Your task to perform on an android device: add a contact in the contacts app Image 0: 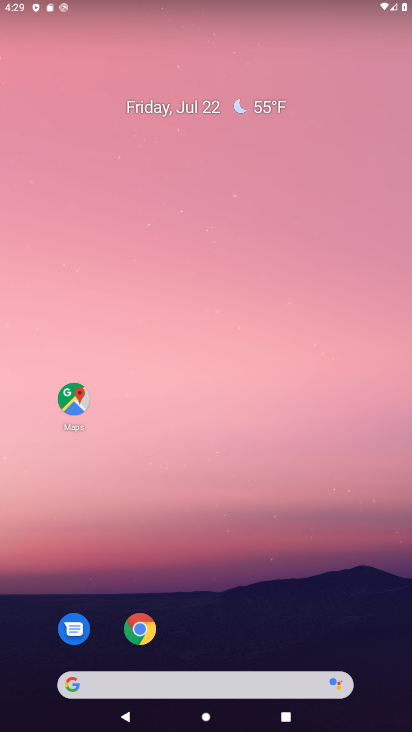
Step 0: drag from (245, 546) to (263, 212)
Your task to perform on an android device: add a contact in the contacts app Image 1: 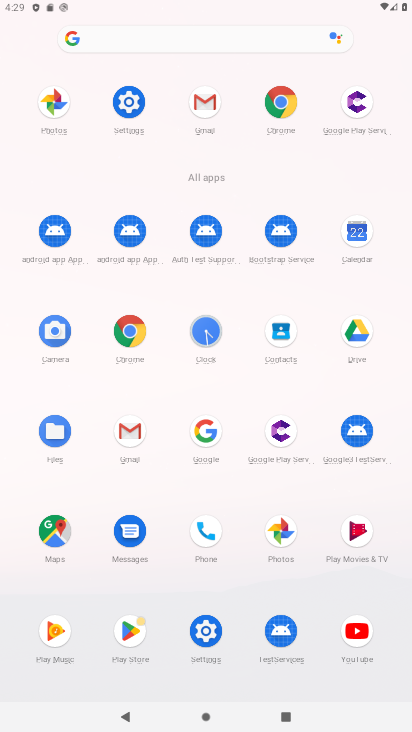
Step 1: click (280, 330)
Your task to perform on an android device: add a contact in the contacts app Image 2: 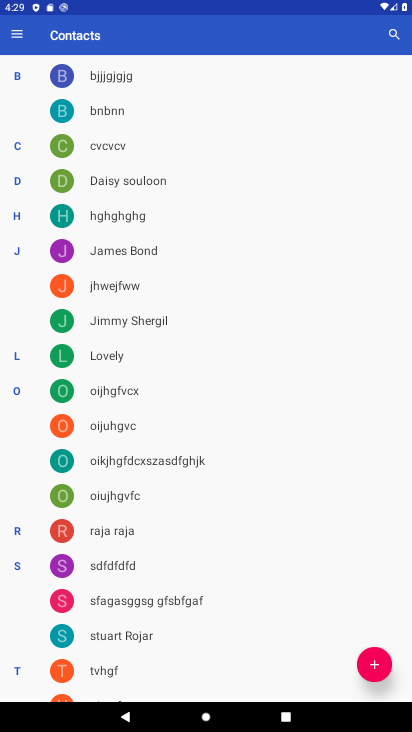
Step 2: click (371, 661)
Your task to perform on an android device: add a contact in the contacts app Image 3: 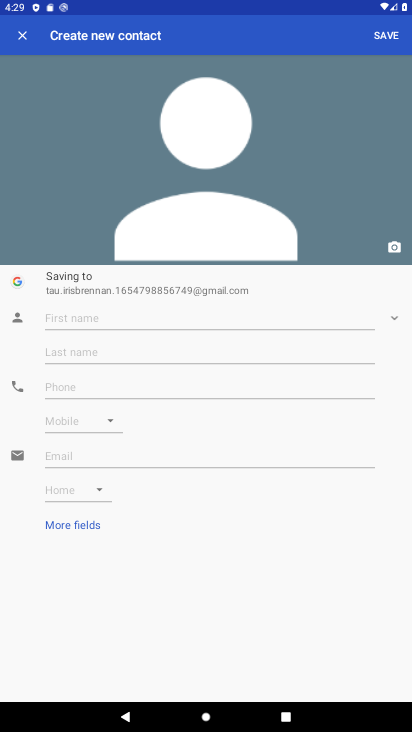
Step 3: click (137, 326)
Your task to perform on an android device: add a contact in the contacts app Image 4: 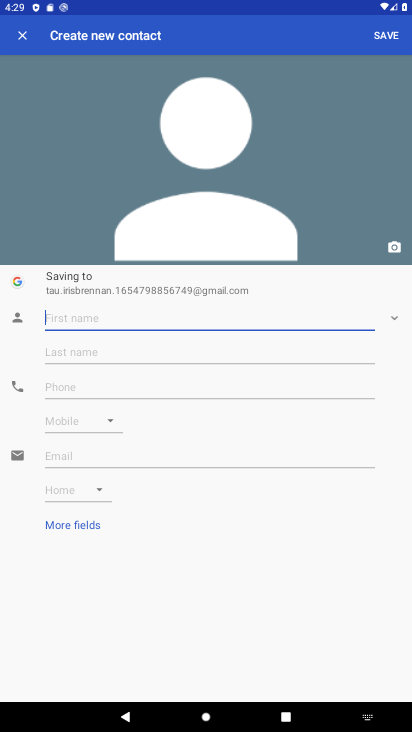
Step 4: type "hnm"
Your task to perform on an android device: add a contact in the contacts app Image 5: 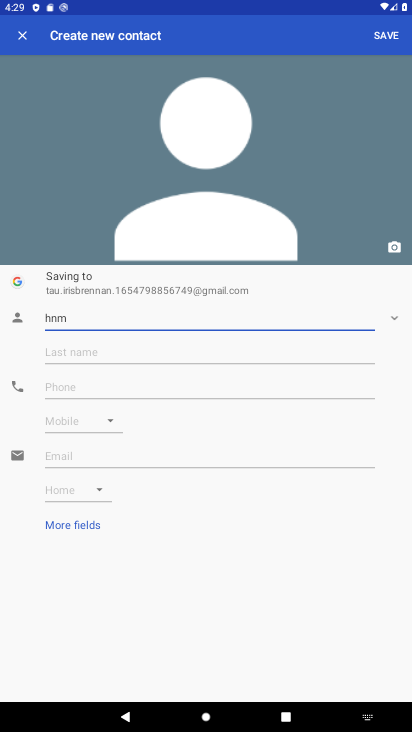
Step 5: press enter
Your task to perform on an android device: add a contact in the contacts app Image 6: 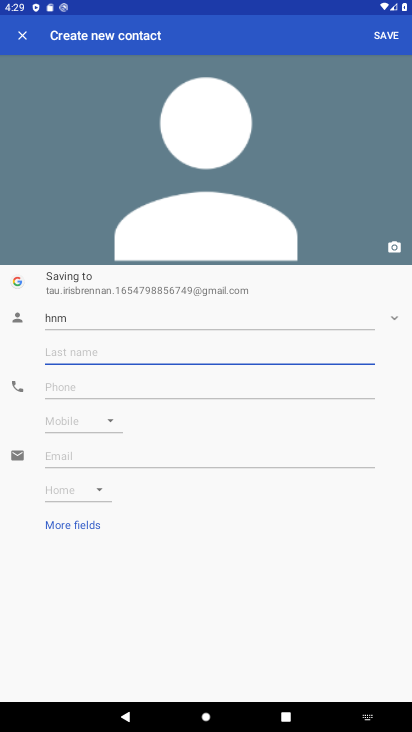
Step 6: type "ui"
Your task to perform on an android device: add a contact in the contacts app Image 7: 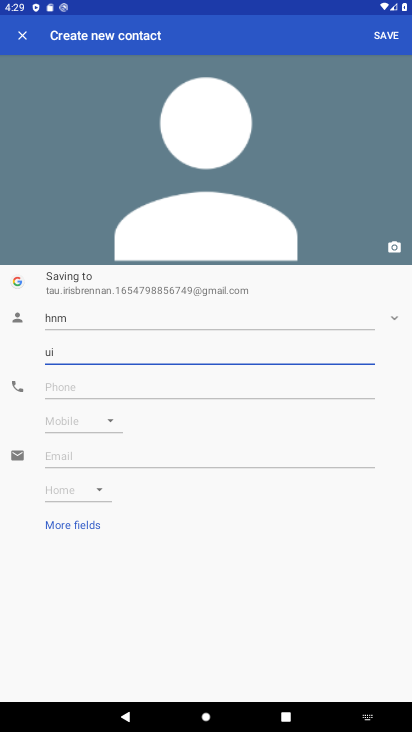
Step 7: press enter
Your task to perform on an android device: add a contact in the contacts app Image 8: 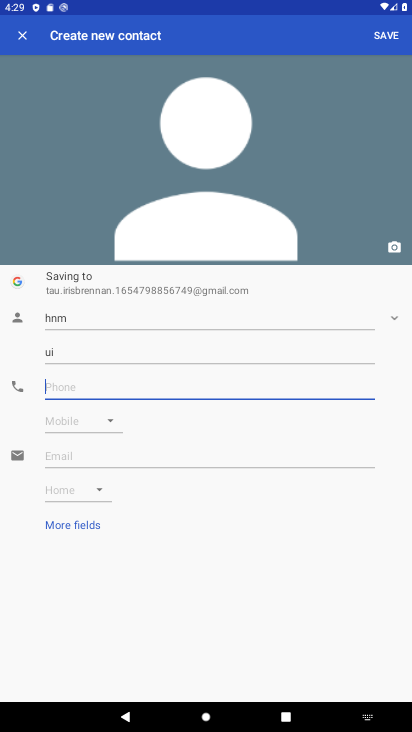
Step 8: click (149, 386)
Your task to perform on an android device: add a contact in the contacts app Image 9: 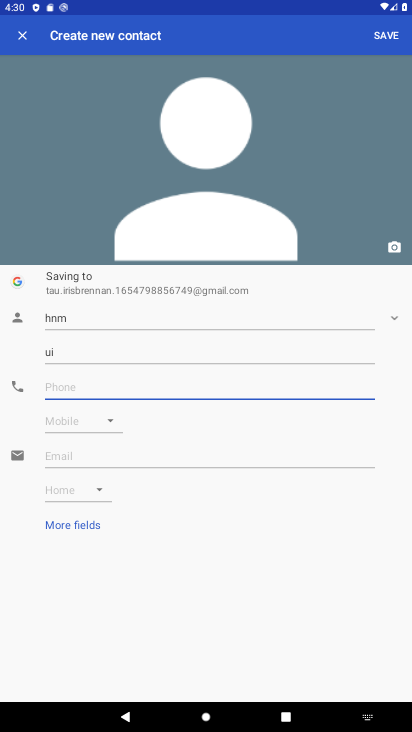
Step 9: type "6789"
Your task to perform on an android device: add a contact in the contacts app Image 10: 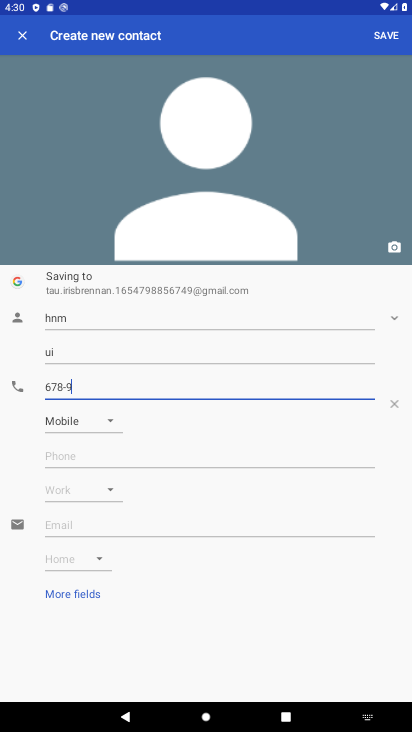
Step 10: press enter
Your task to perform on an android device: add a contact in the contacts app Image 11: 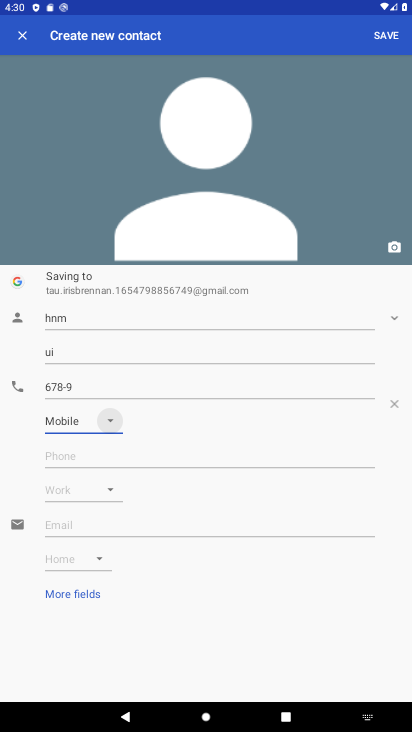
Step 11: click (381, 37)
Your task to perform on an android device: add a contact in the contacts app Image 12: 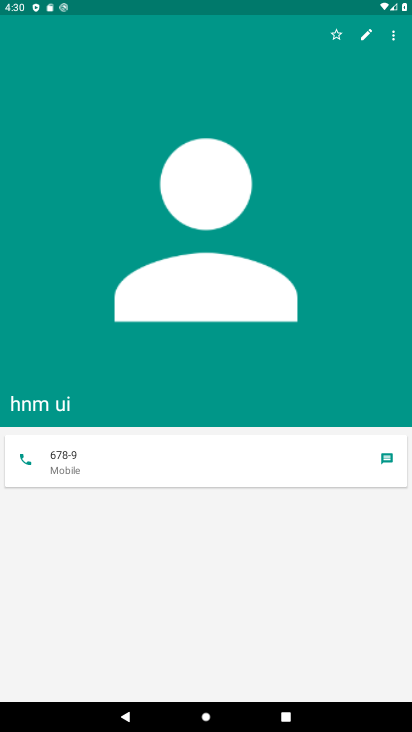
Step 12: task complete